Your task to perform on an android device: What's the weather going to be tomorrow? Image 0: 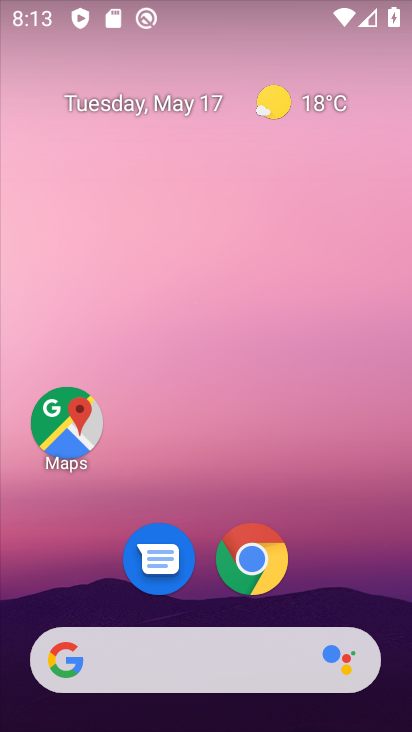
Step 0: click (305, 92)
Your task to perform on an android device: What's the weather going to be tomorrow? Image 1: 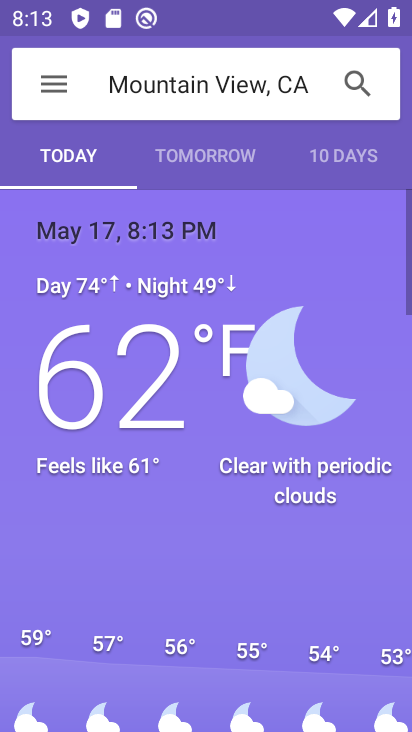
Step 1: click (207, 153)
Your task to perform on an android device: What's the weather going to be tomorrow? Image 2: 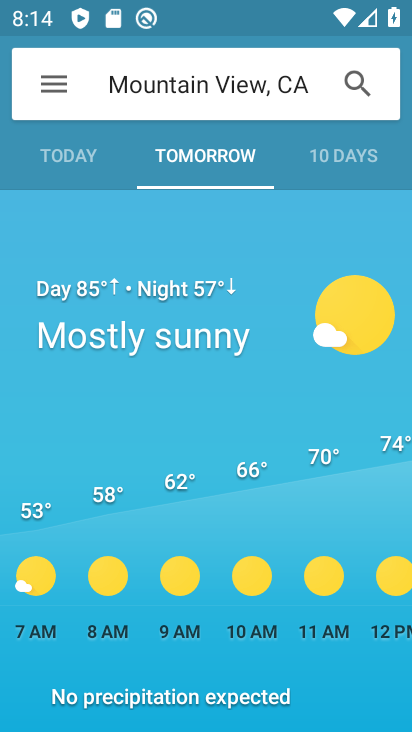
Step 2: task complete